Your task to perform on an android device: What is the news today? Image 0: 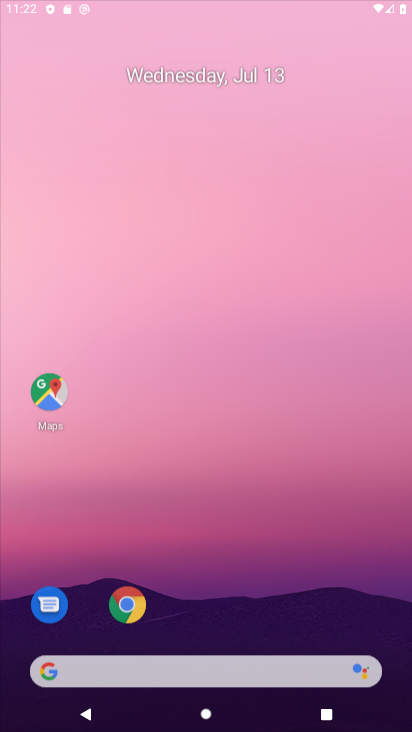
Step 0: click (259, 157)
Your task to perform on an android device: What is the news today? Image 1: 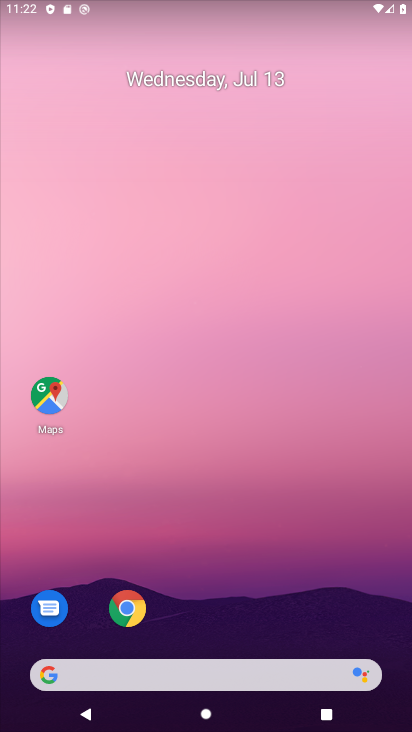
Step 1: drag from (176, 635) to (188, 212)
Your task to perform on an android device: What is the news today? Image 2: 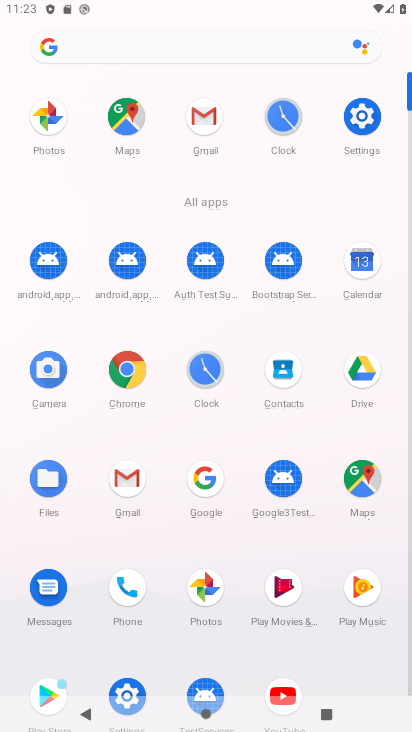
Step 2: drag from (236, 497) to (239, 322)
Your task to perform on an android device: What is the news today? Image 3: 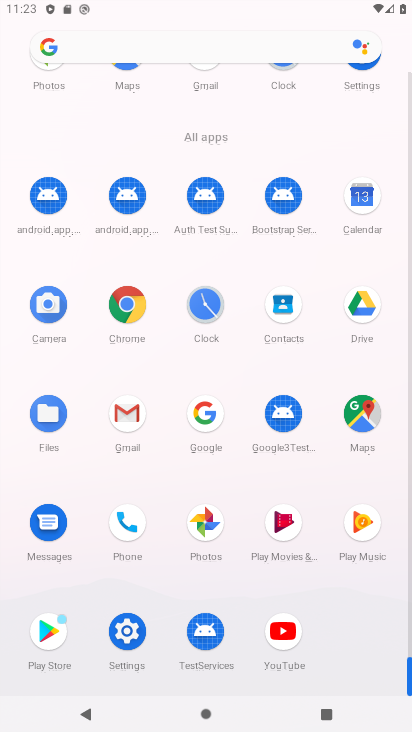
Step 3: drag from (193, 540) to (198, 449)
Your task to perform on an android device: What is the news today? Image 4: 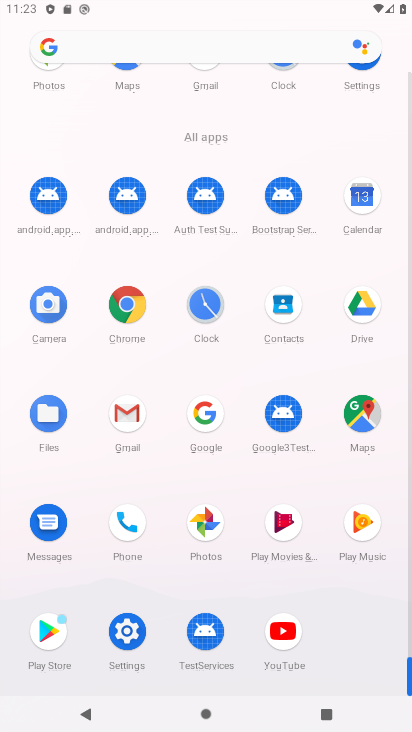
Step 4: drag from (159, 586) to (171, 336)
Your task to perform on an android device: What is the news today? Image 5: 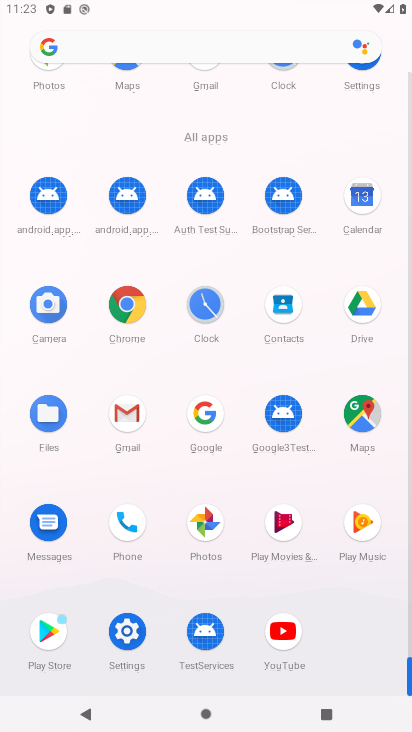
Step 5: drag from (194, 448) to (188, 277)
Your task to perform on an android device: What is the news today? Image 6: 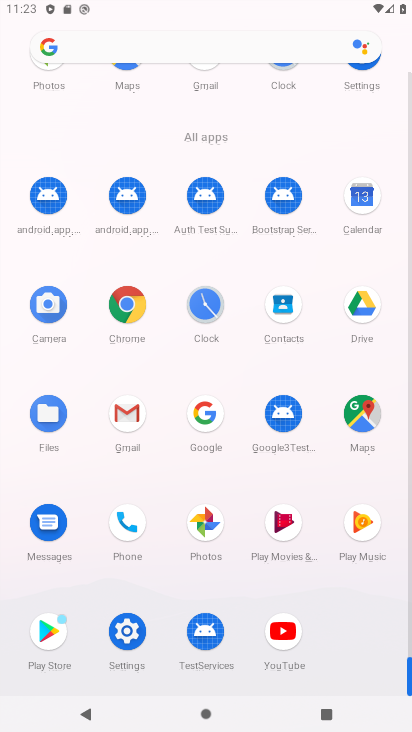
Step 6: click (123, 401)
Your task to perform on an android device: What is the news today? Image 7: 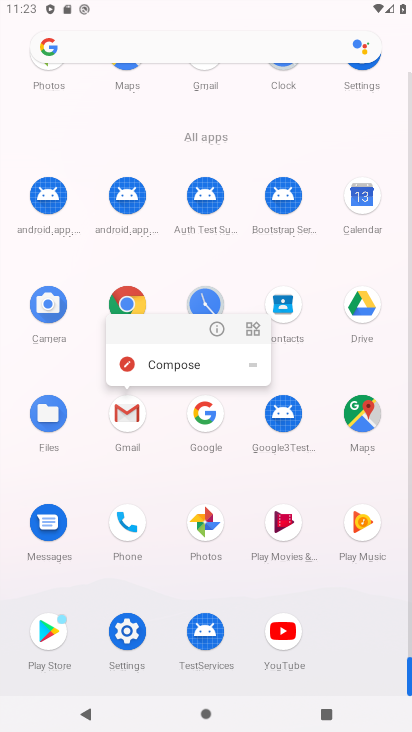
Step 7: click (214, 333)
Your task to perform on an android device: What is the news today? Image 8: 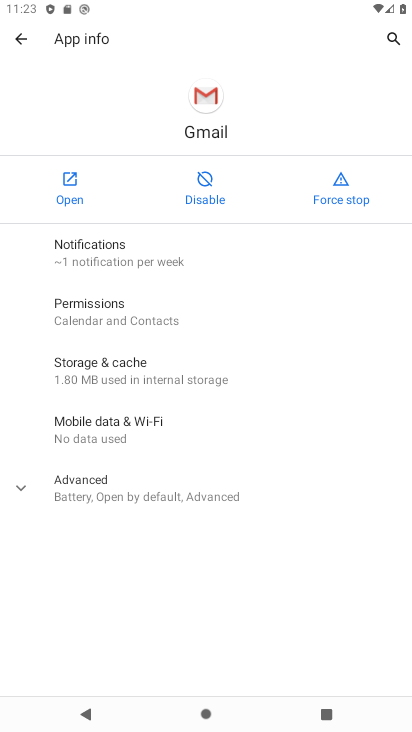
Step 8: click (68, 186)
Your task to perform on an android device: What is the news today? Image 9: 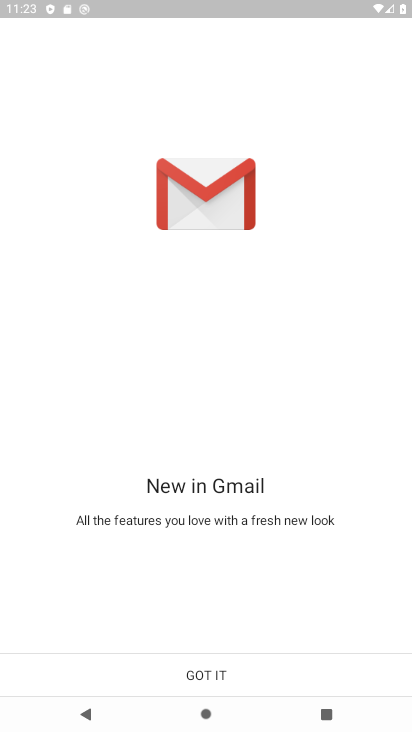
Step 9: click (198, 665)
Your task to perform on an android device: What is the news today? Image 10: 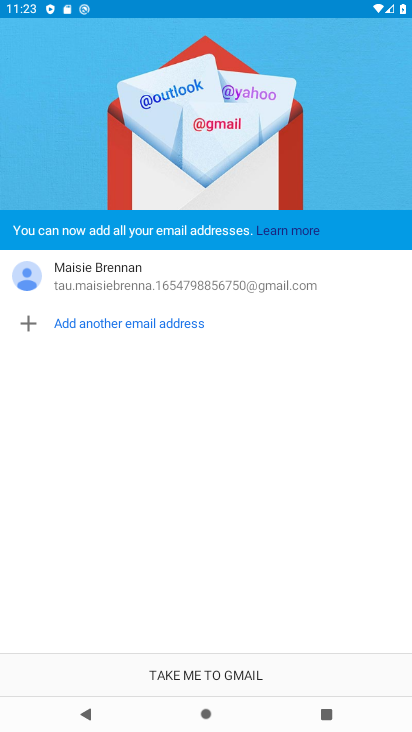
Step 10: click (197, 675)
Your task to perform on an android device: What is the news today? Image 11: 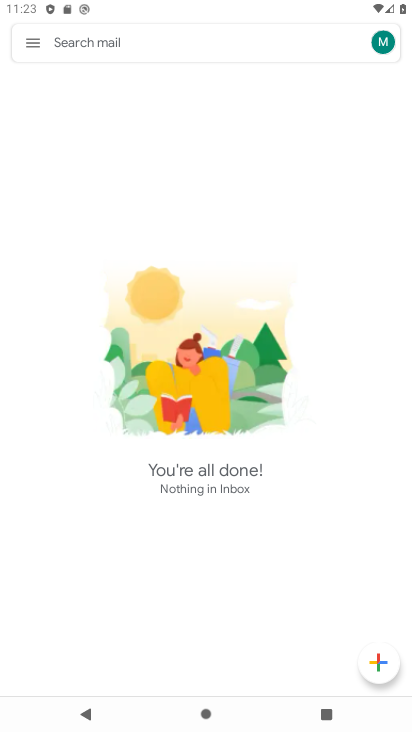
Step 11: drag from (201, 609) to (200, 382)
Your task to perform on an android device: What is the news today? Image 12: 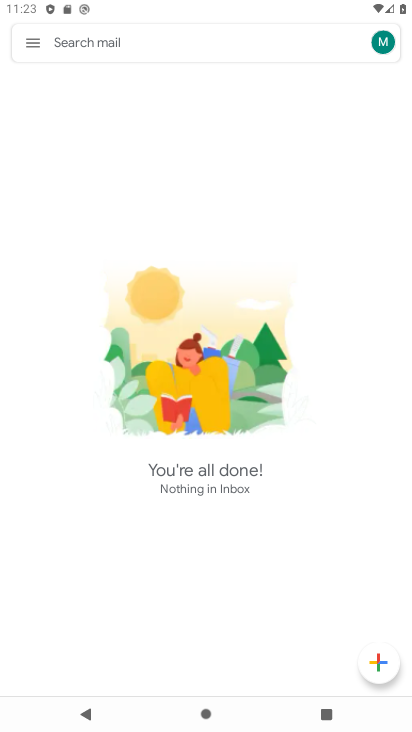
Step 12: click (24, 51)
Your task to perform on an android device: What is the news today? Image 13: 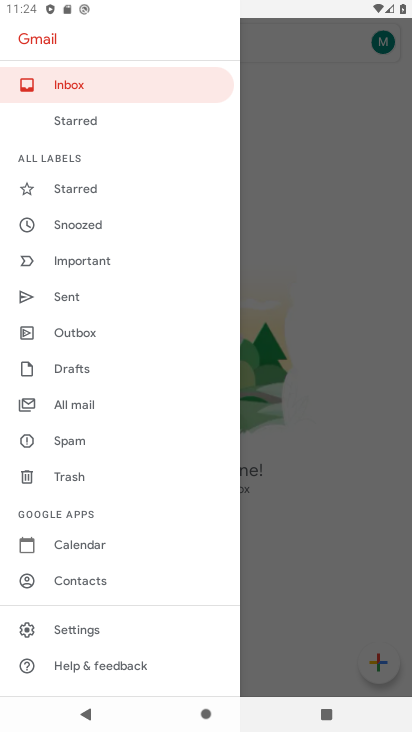
Step 13: drag from (113, 577) to (115, 335)
Your task to perform on an android device: What is the news today? Image 14: 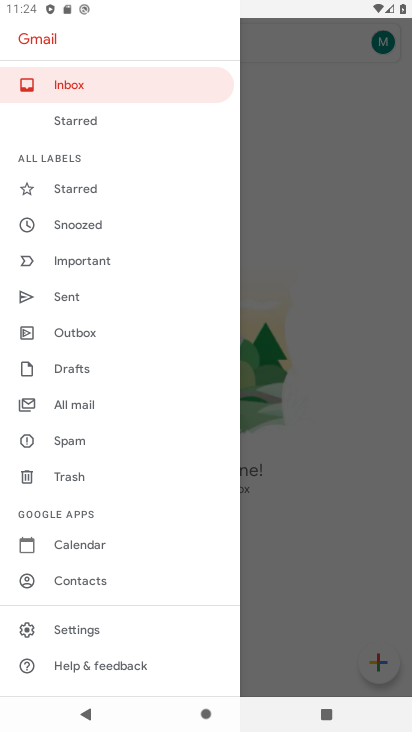
Step 14: drag from (100, 605) to (111, 366)
Your task to perform on an android device: What is the news today? Image 15: 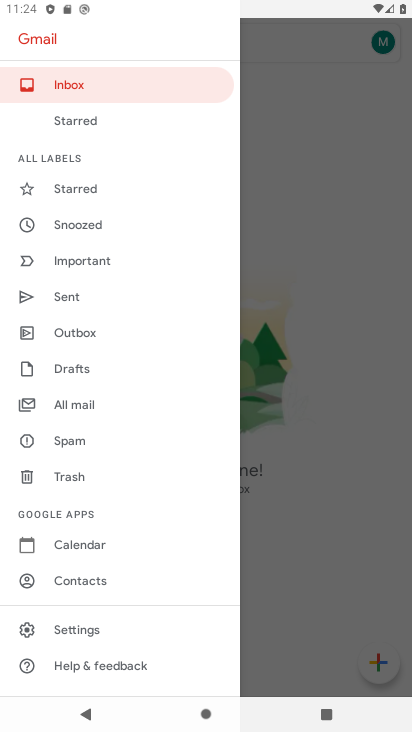
Step 15: drag from (113, 610) to (112, 240)
Your task to perform on an android device: What is the news today? Image 16: 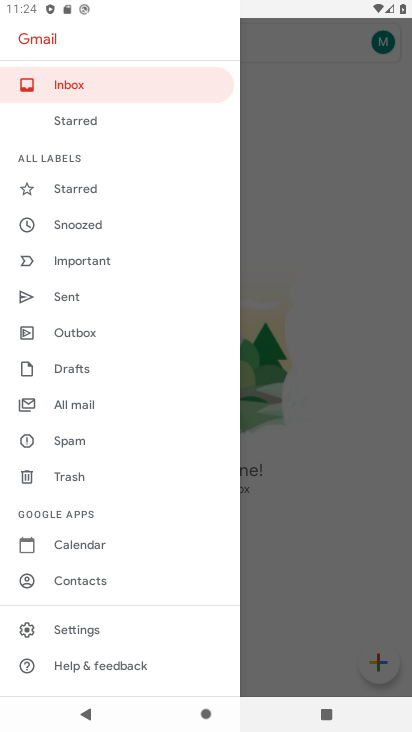
Step 16: click (325, 499)
Your task to perform on an android device: What is the news today? Image 17: 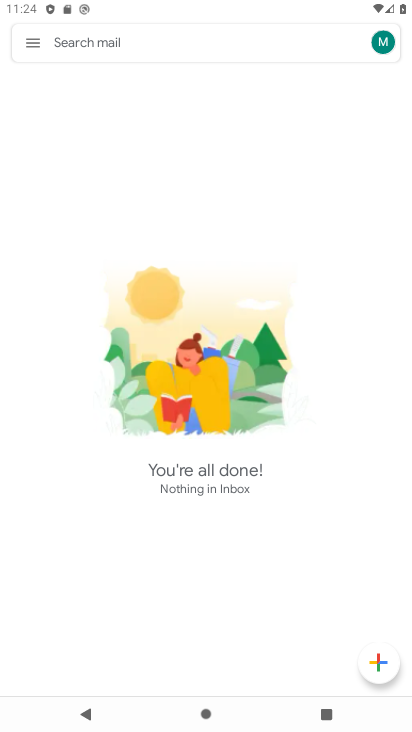
Step 17: press home button
Your task to perform on an android device: What is the news today? Image 18: 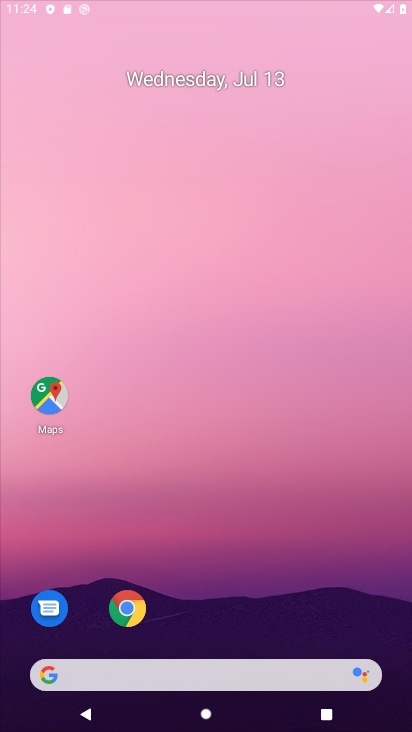
Step 18: drag from (219, 336) to (198, 196)
Your task to perform on an android device: What is the news today? Image 19: 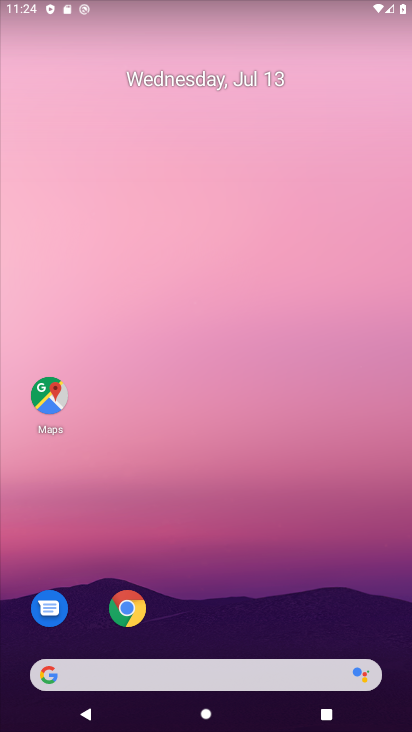
Step 19: drag from (201, 590) to (183, 40)
Your task to perform on an android device: What is the news today? Image 20: 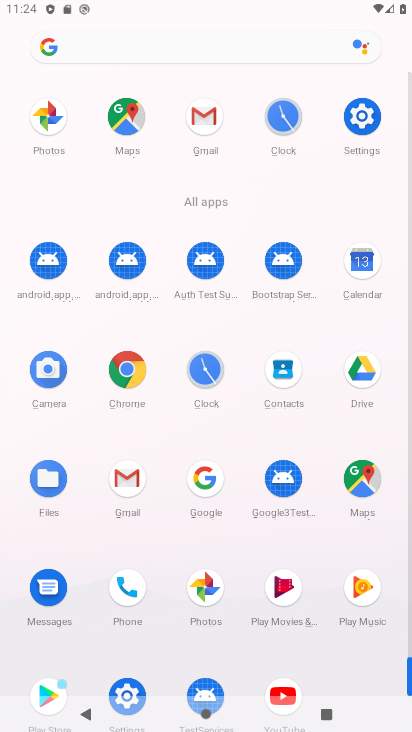
Step 20: click (161, 50)
Your task to perform on an android device: What is the news today? Image 21: 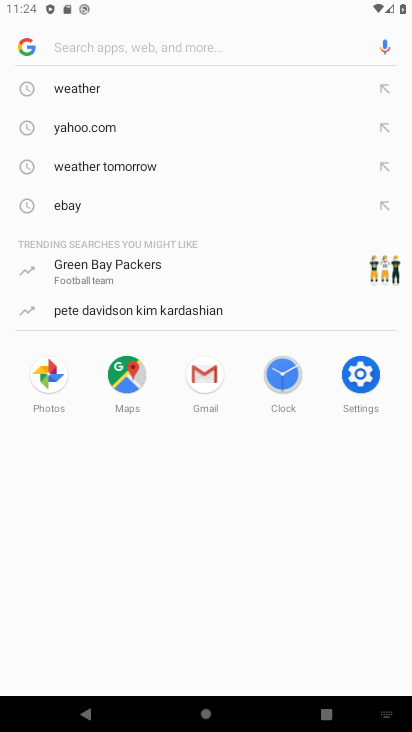
Step 21: type "news today?"
Your task to perform on an android device: What is the news today? Image 22: 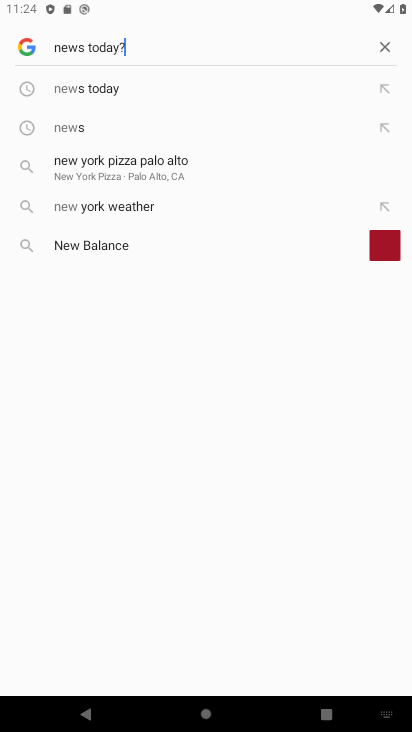
Step 22: type ""
Your task to perform on an android device: What is the news today? Image 23: 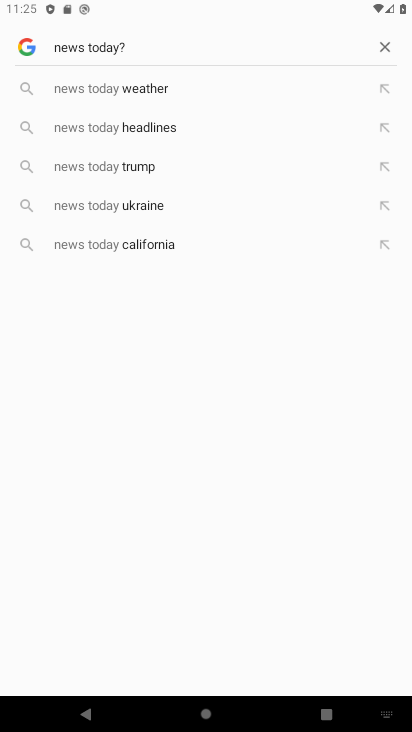
Step 23: click (137, 85)
Your task to perform on an android device: What is the news today? Image 24: 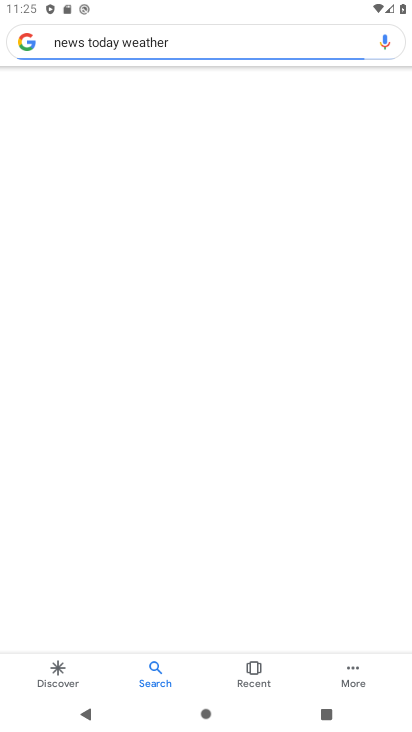
Step 24: task complete